Your task to perform on an android device: toggle notification dots Image 0: 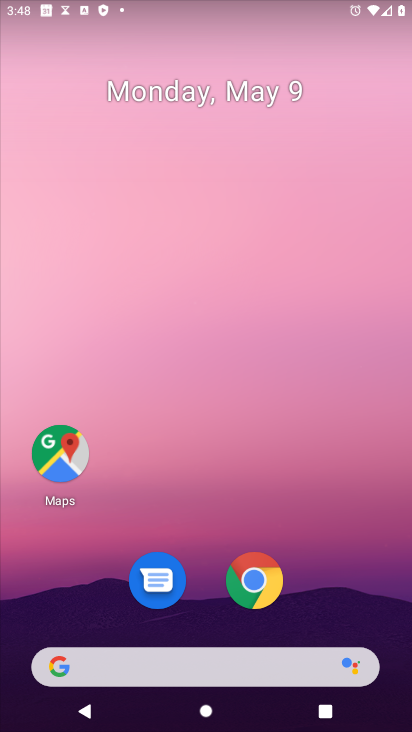
Step 0: drag from (329, 523) to (160, 0)
Your task to perform on an android device: toggle notification dots Image 1: 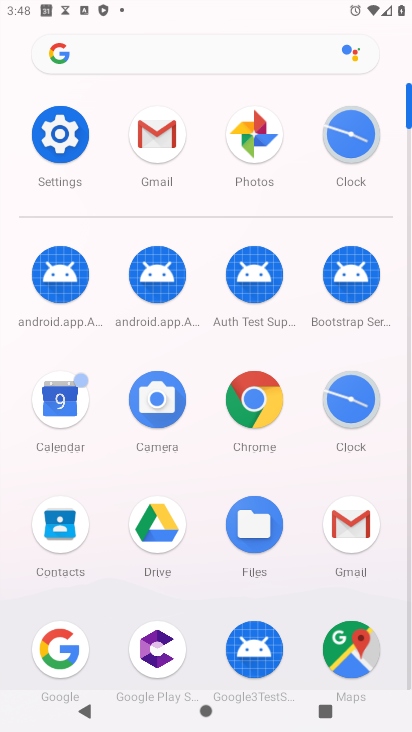
Step 1: click (47, 111)
Your task to perform on an android device: toggle notification dots Image 2: 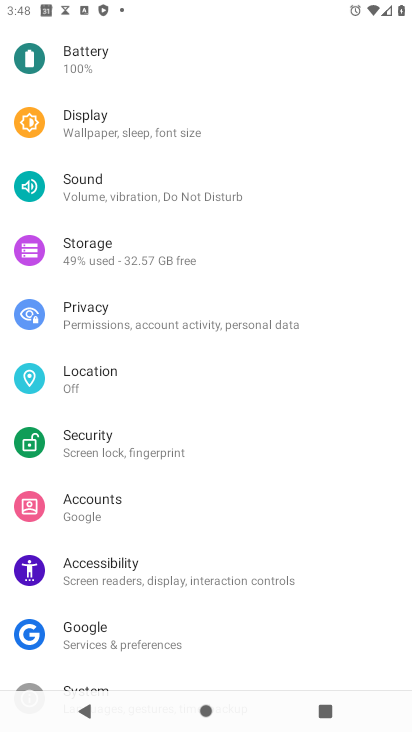
Step 2: drag from (227, 160) to (230, 646)
Your task to perform on an android device: toggle notification dots Image 3: 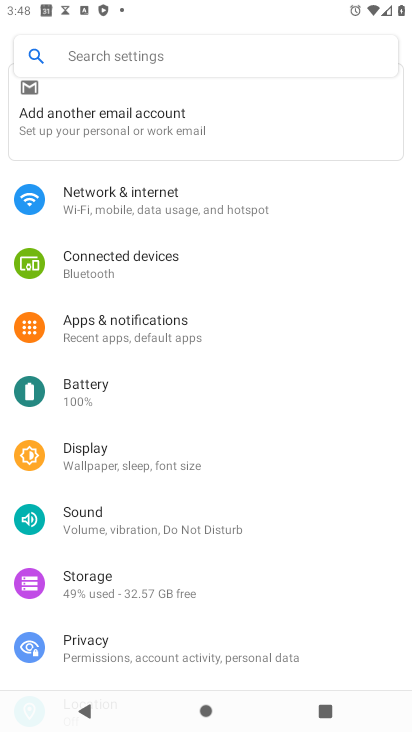
Step 3: click (169, 333)
Your task to perform on an android device: toggle notification dots Image 4: 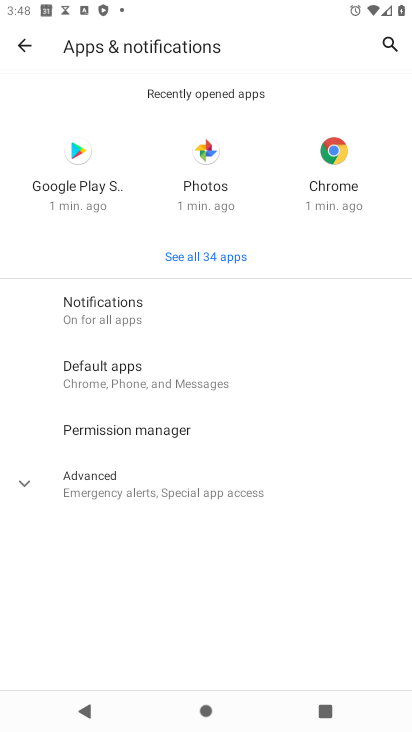
Step 4: click (128, 311)
Your task to perform on an android device: toggle notification dots Image 5: 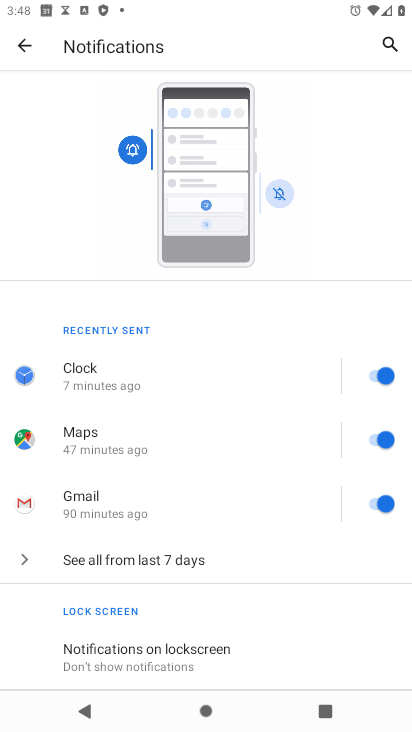
Step 5: drag from (198, 544) to (204, 239)
Your task to perform on an android device: toggle notification dots Image 6: 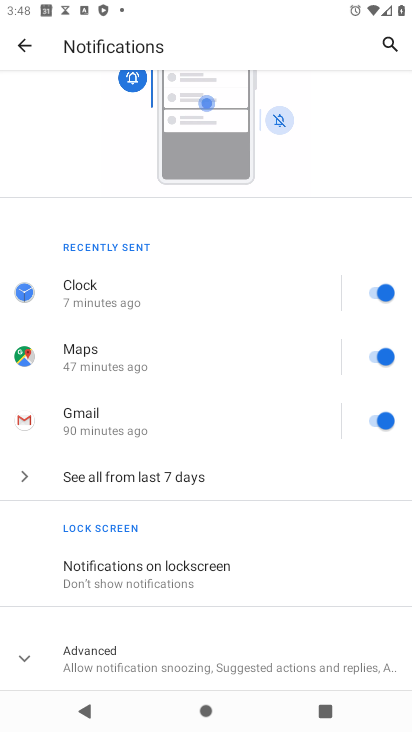
Step 6: click (189, 643)
Your task to perform on an android device: toggle notification dots Image 7: 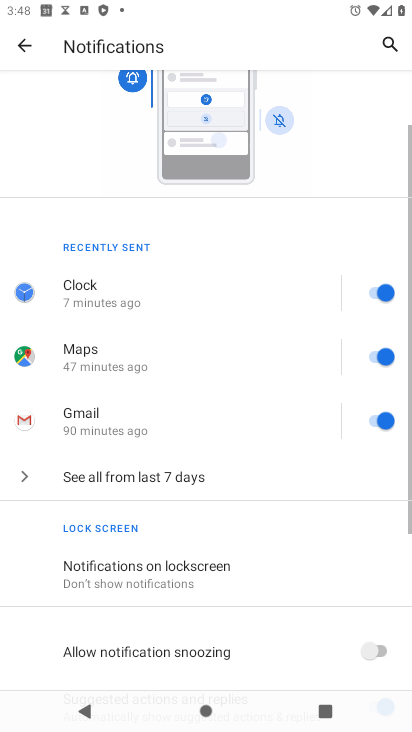
Step 7: drag from (202, 526) to (205, 217)
Your task to perform on an android device: toggle notification dots Image 8: 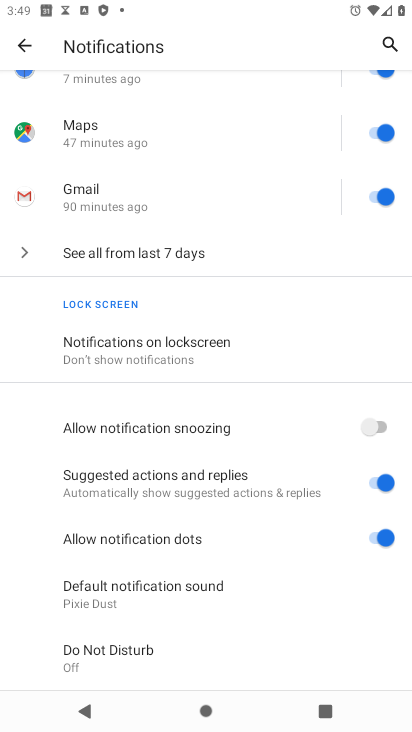
Step 8: click (381, 541)
Your task to perform on an android device: toggle notification dots Image 9: 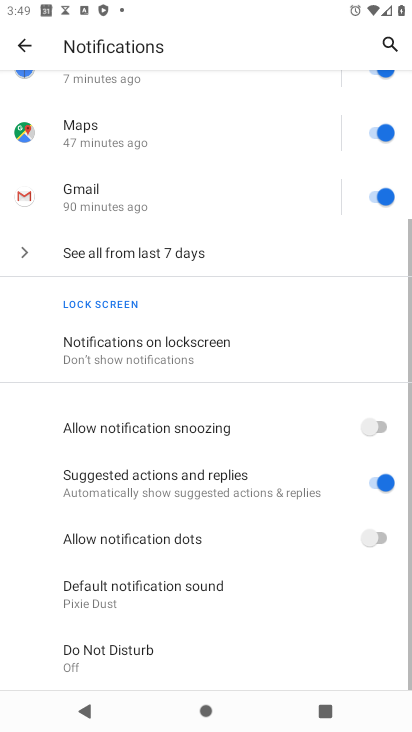
Step 9: task complete